Your task to perform on an android device: set the stopwatch Image 0: 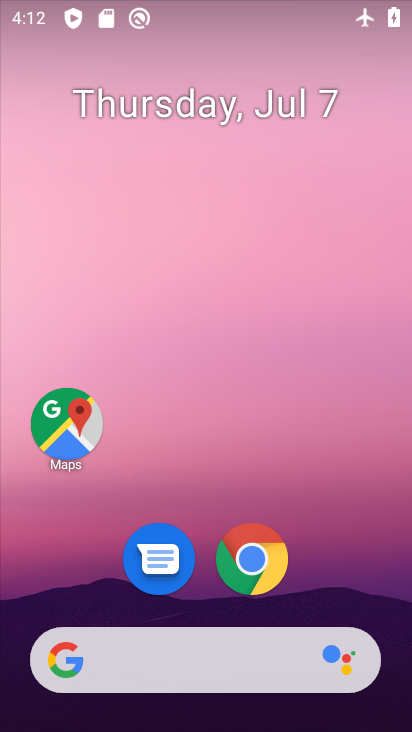
Step 0: drag from (206, 615) to (140, 2)
Your task to perform on an android device: set the stopwatch Image 1: 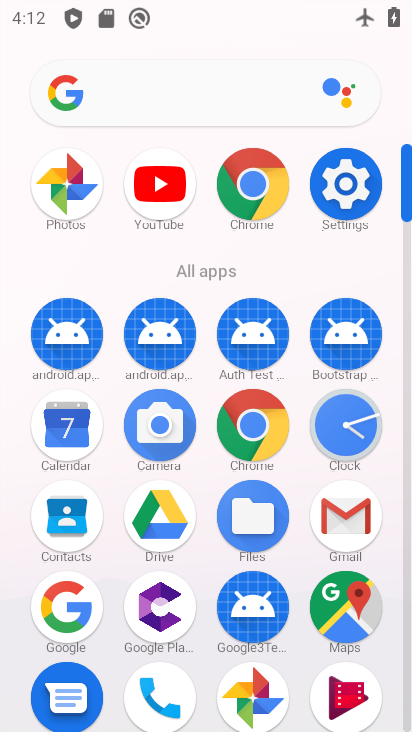
Step 1: click (337, 452)
Your task to perform on an android device: set the stopwatch Image 2: 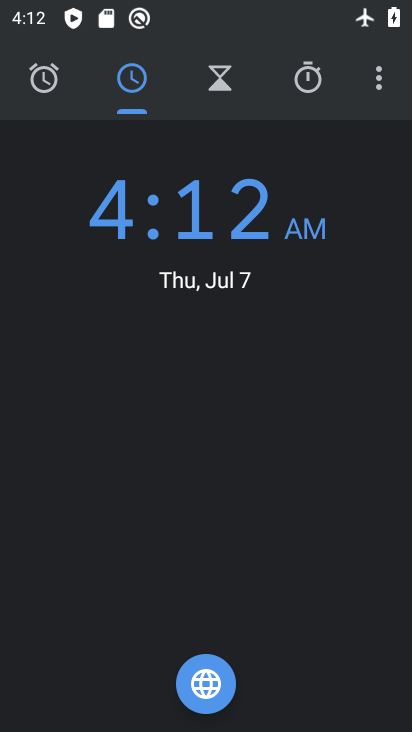
Step 2: click (296, 87)
Your task to perform on an android device: set the stopwatch Image 3: 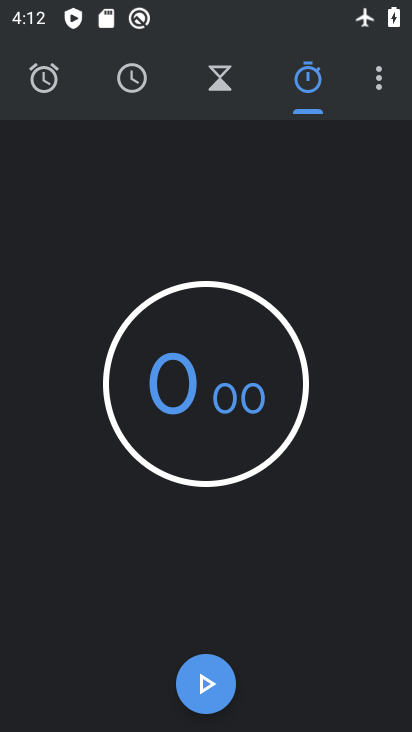
Step 3: task complete